Your task to perform on an android device: toggle priority inbox in the gmail app Image 0: 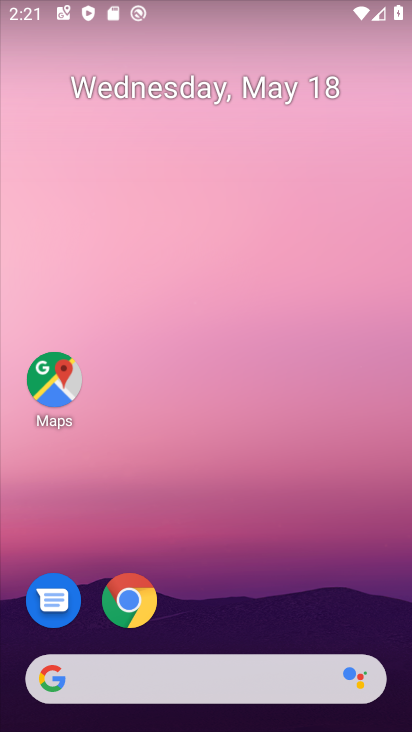
Step 0: drag from (248, 477) to (266, 8)
Your task to perform on an android device: toggle priority inbox in the gmail app Image 1: 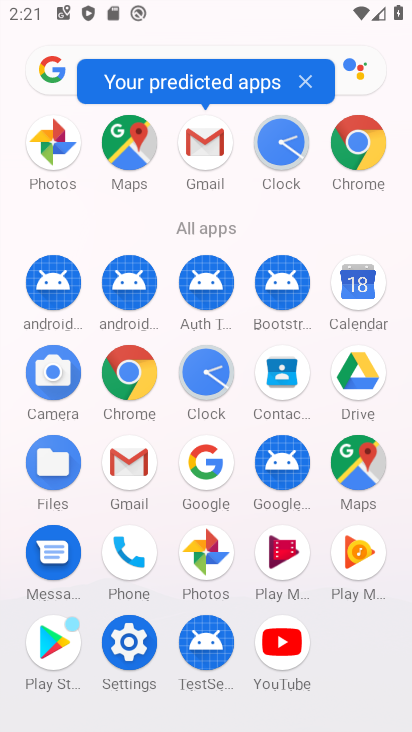
Step 1: click (141, 471)
Your task to perform on an android device: toggle priority inbox in the gmail app Image 2: 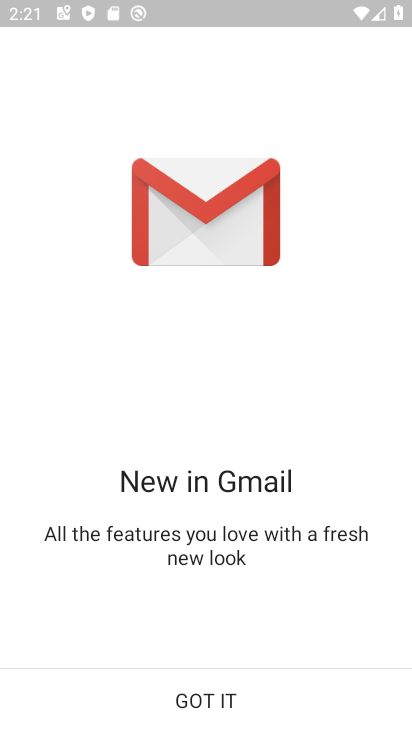
Step 2: click (205, 711)
Your task to perform on an android device: toggle priority inbox in the gmail app Image 3: 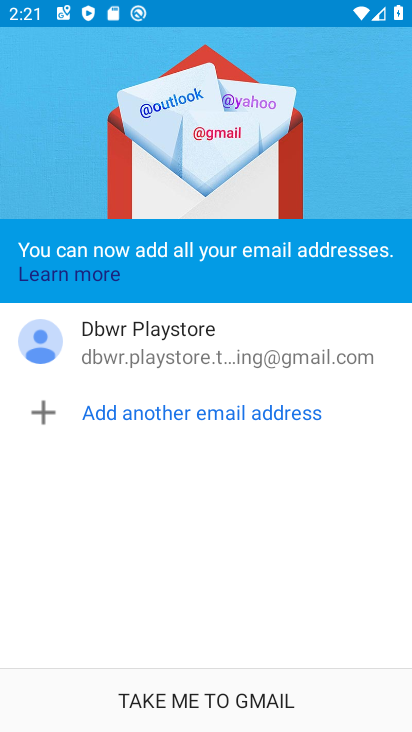
Step 3: click (205, 711)
Your task to perform on an android device: toggle priority inbox in the gmail app Image 4: 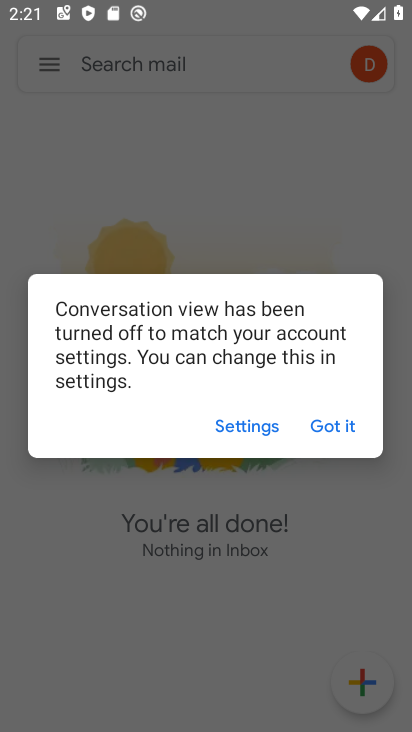
Step 4: click (357, 432)
Your task to perform on an android device: toggle priority inbox in the gmail app Image 5: 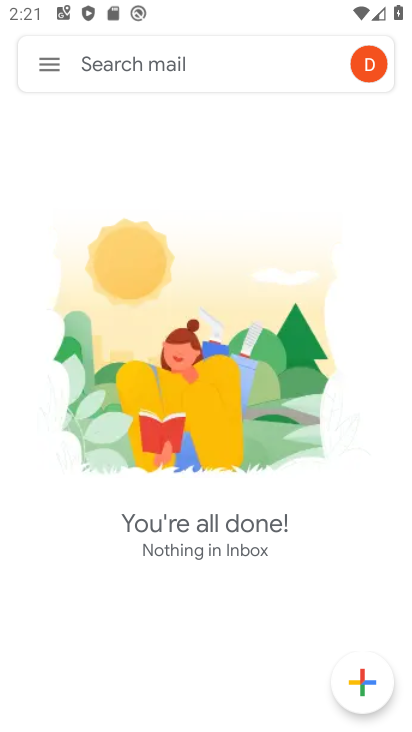
Step 5: click (56, 63)
Your task to perform on an android device: toggle priority inbox in the gmail app Image 6: 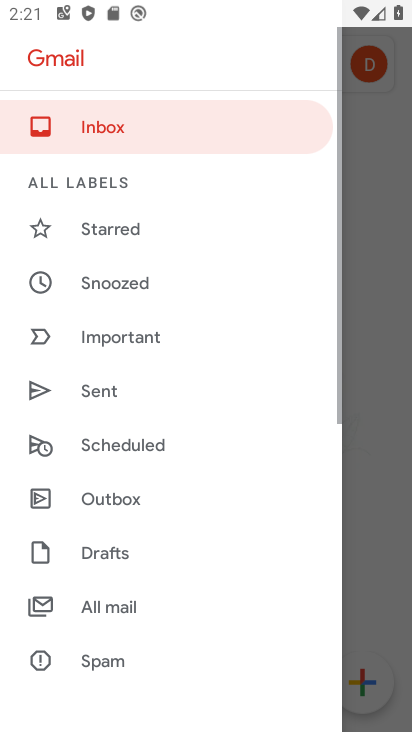
Step 6: drag from (97, 576) to (135, 270)
Your task to perform on an android device: toggle priority inbox in the gmail app Image 7: 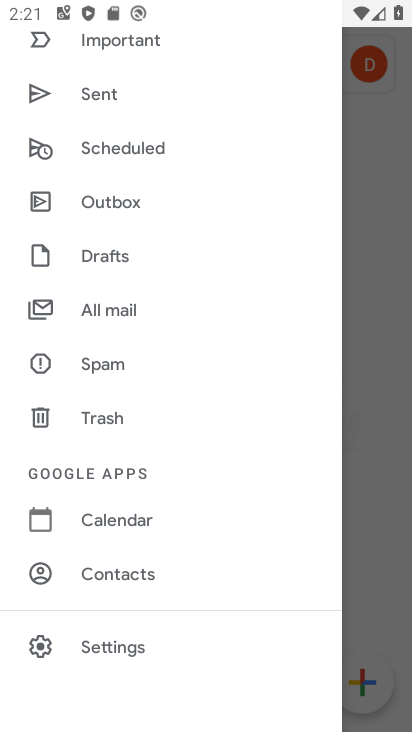
Step 7: click (103, 653)
Your task to perform on an android device: toggle priority inbox in the gmail app Image 8: 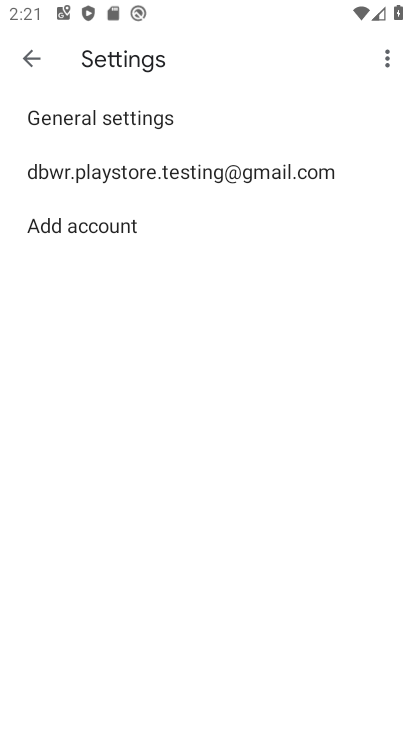
Step 8: click (197, 168)
Your task to perform on an android device: toggle priority inbox in the gmail app Image 9: 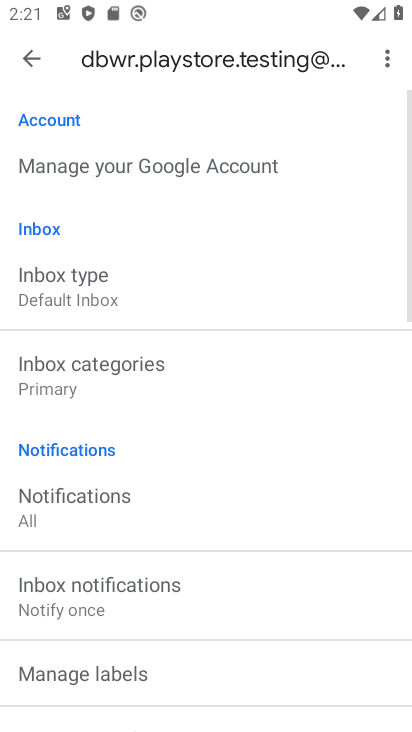
Step 9: click (137, 289)
Your task to perform on an android device: toggle priority inbox in the gmail app Image 10: 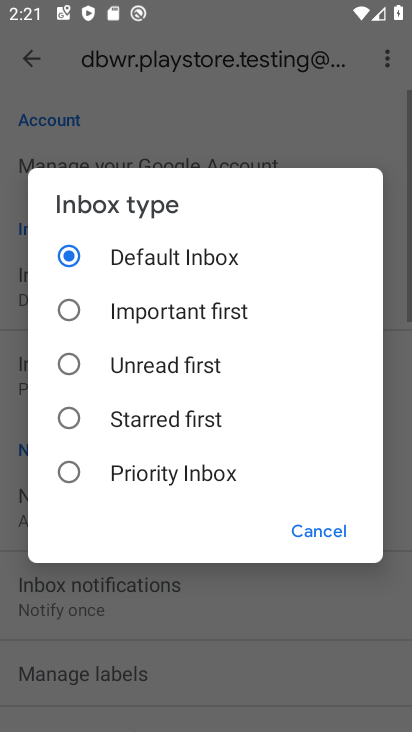
Step 10: click (112, 476)
Your task to perform on an android device: toggle priority inbox in the gmail app Image 11: 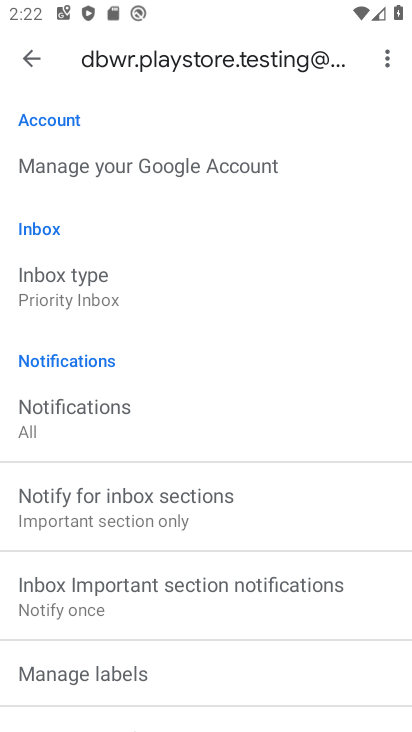
Step 11: task complete